Your task to perform on an android device: Go to accessibility settings Image 0: 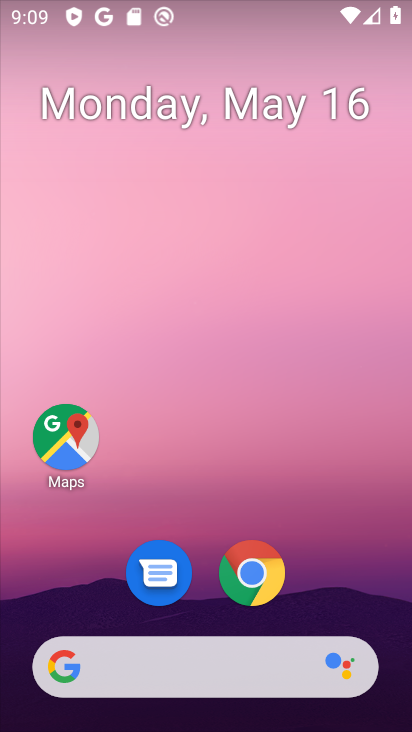
Step 0: drag from (342, 539) to (341, 184)
Your task to perform on an android device: Go to accessibility settings Image 1: 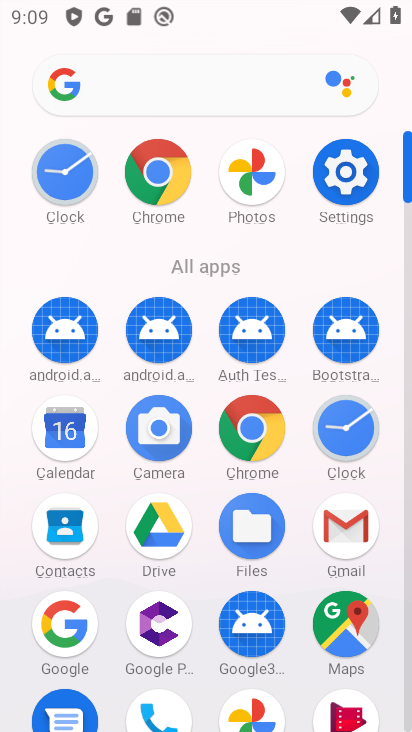
Step 1: click (346, 165)
Your task to perform on an android device: Go to accessibility settings Image 2: 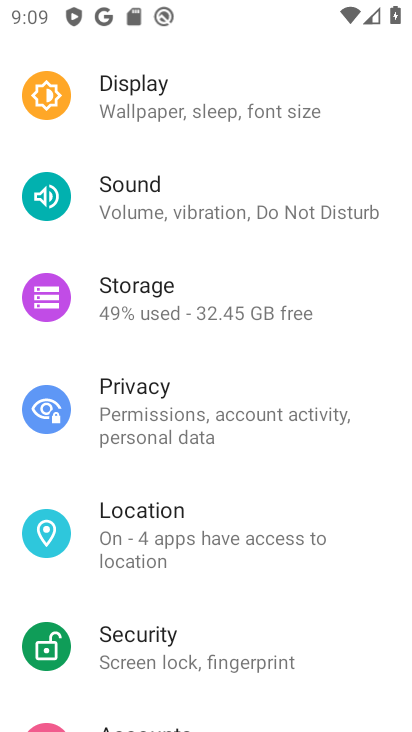
Step 2: drag from (279, 618) to (290, 134)
Your task to perform on an android device: Go to accessibility settings Image 3: 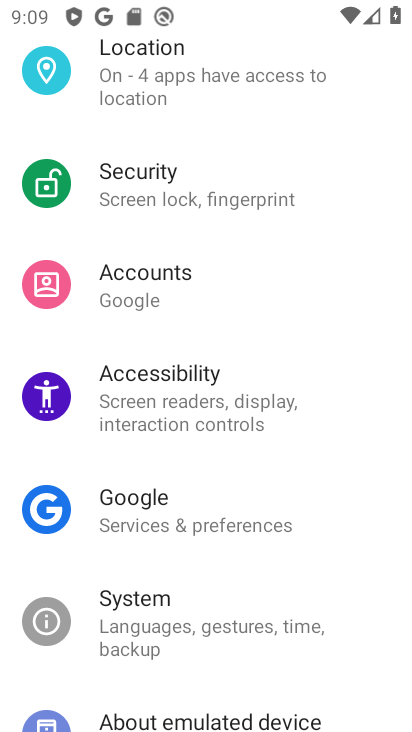
Step 3: click (205, 385)
Your task to perform on an android device: Go to accessibility settings Image 4: 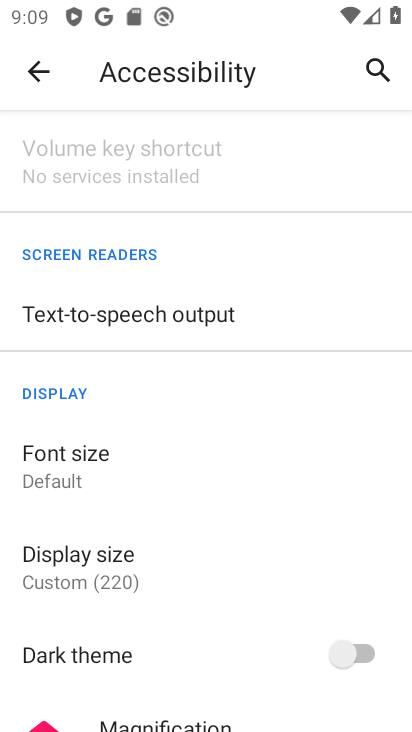
Step 4: task complete